Your task to perform on an android device: set an alarm Image 0: 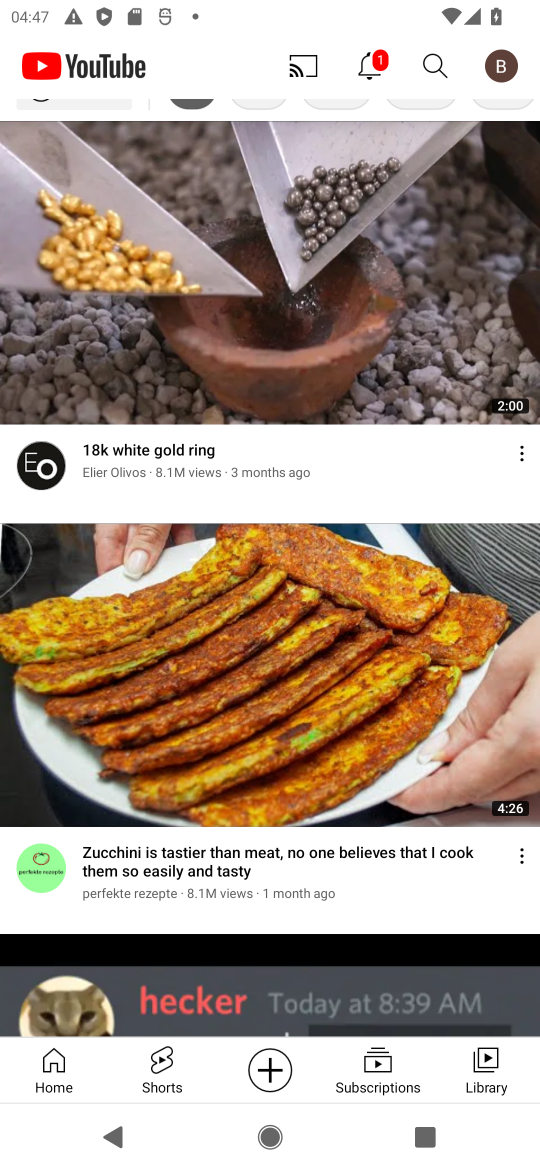
Step 0: press home button
Your task to perform on an android device: set an alarm Image 1: 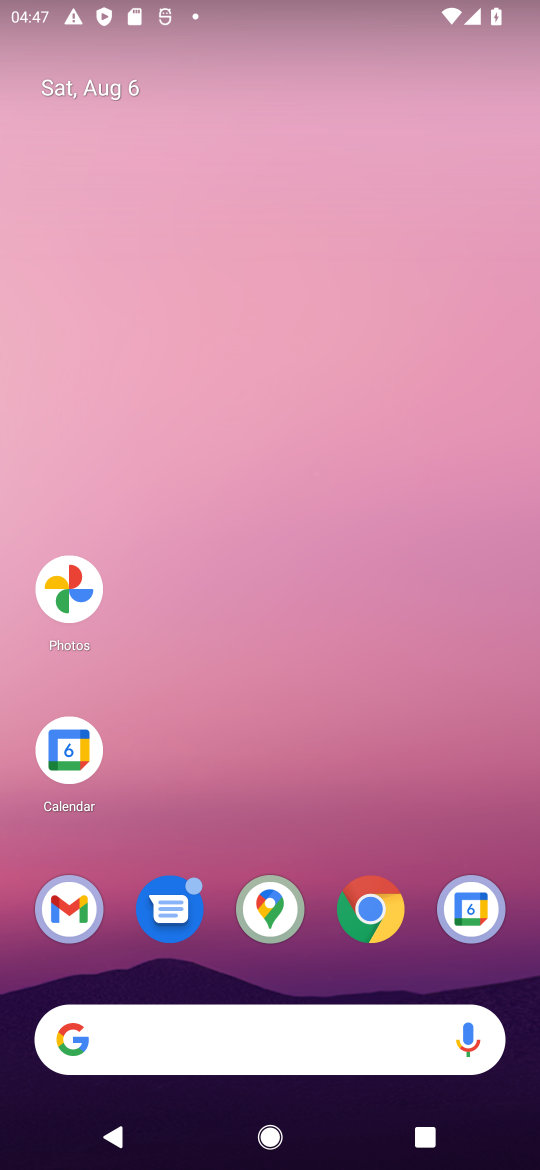
Step 1: drag from (307, 810) to (282, 41)
Your task to perform on an android device: set an alarm Image 2: 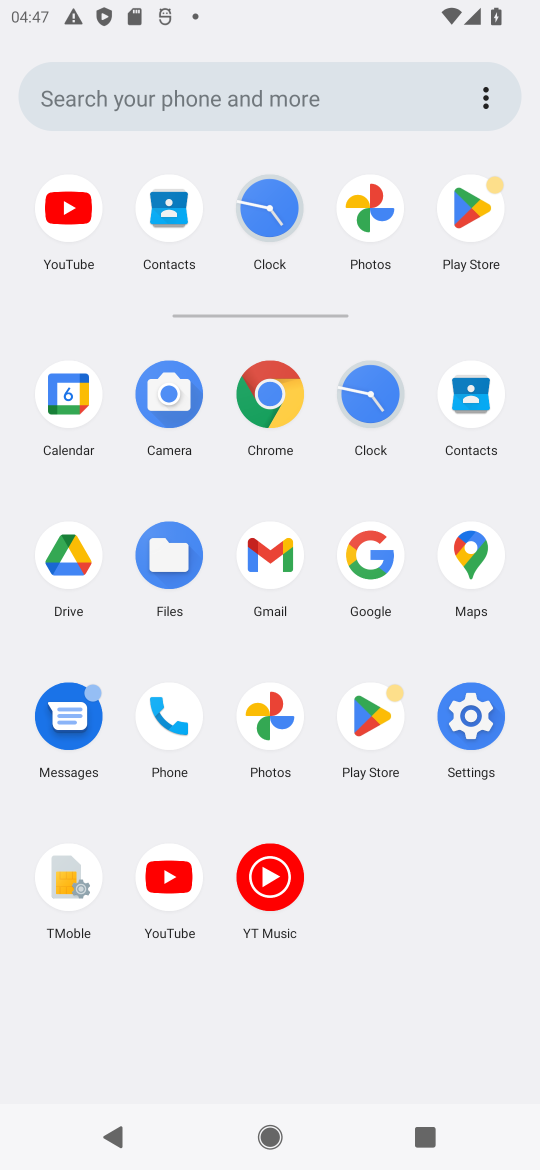
Step 2: click (367, 390)
Your task to perform on an android device: set an alarm Image 3: 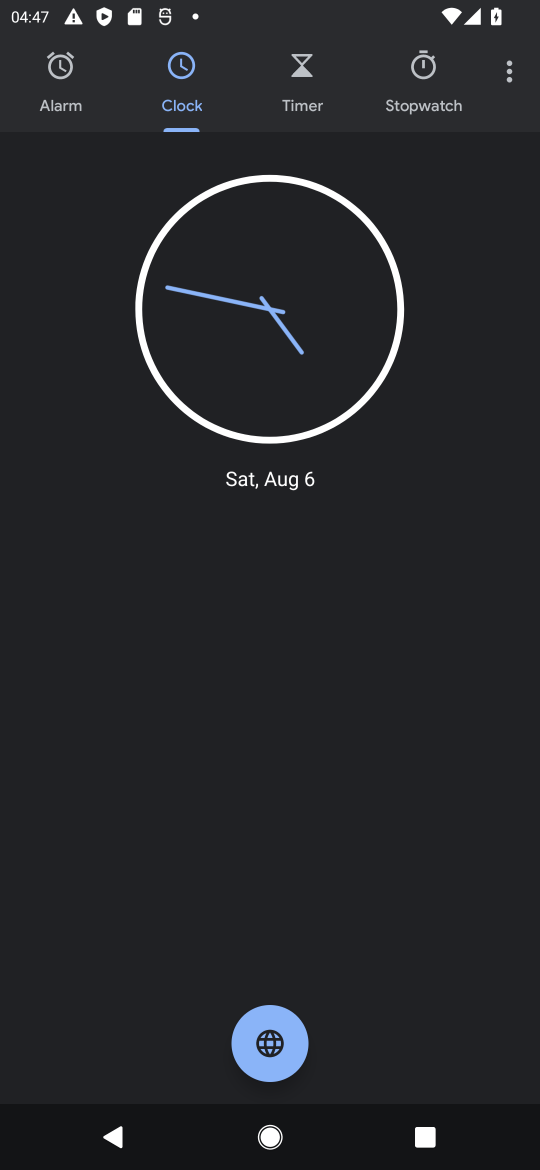
Step 3: click (52, 88)
Your task to perform on an android device: set an alarm Image 4: 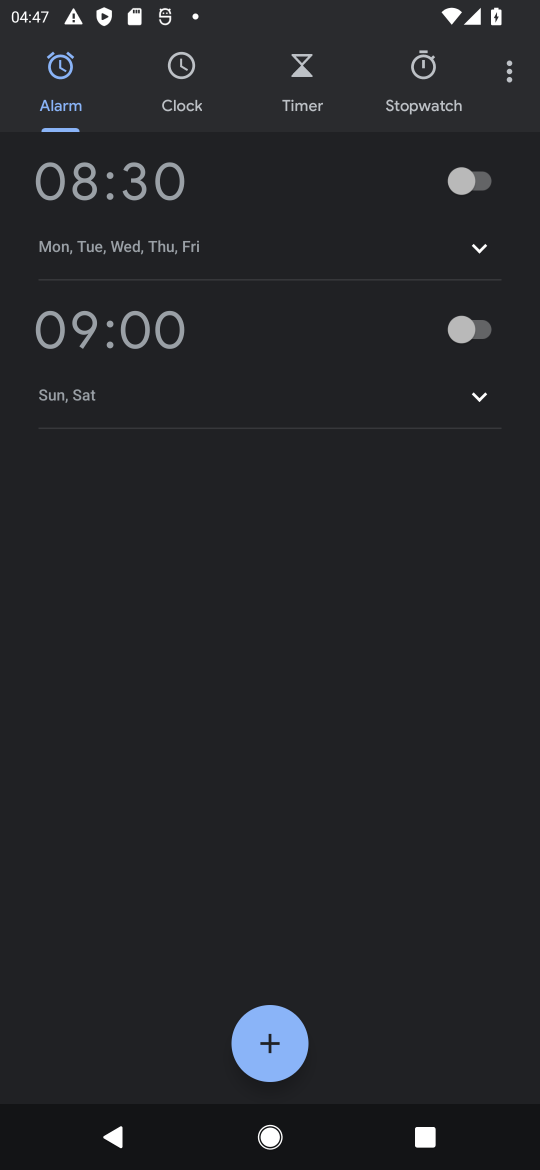
Step 4: click (268, 1041)
Your task to perform on an android device: set an alarm Image 5: 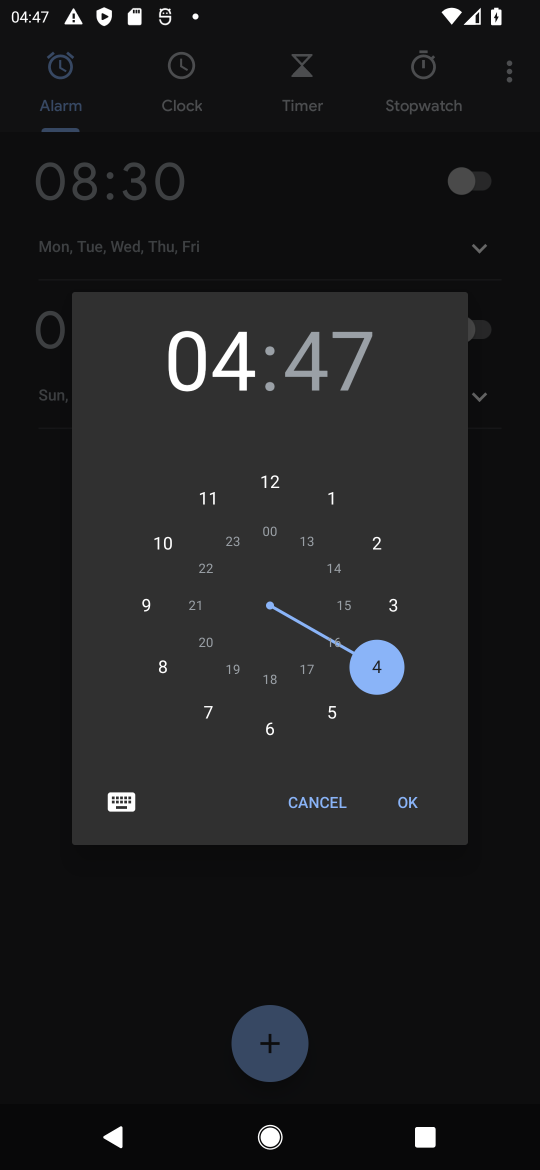
Step 5: click (405, 802)
Your task to perform on an android device: set an alarm Image 6: 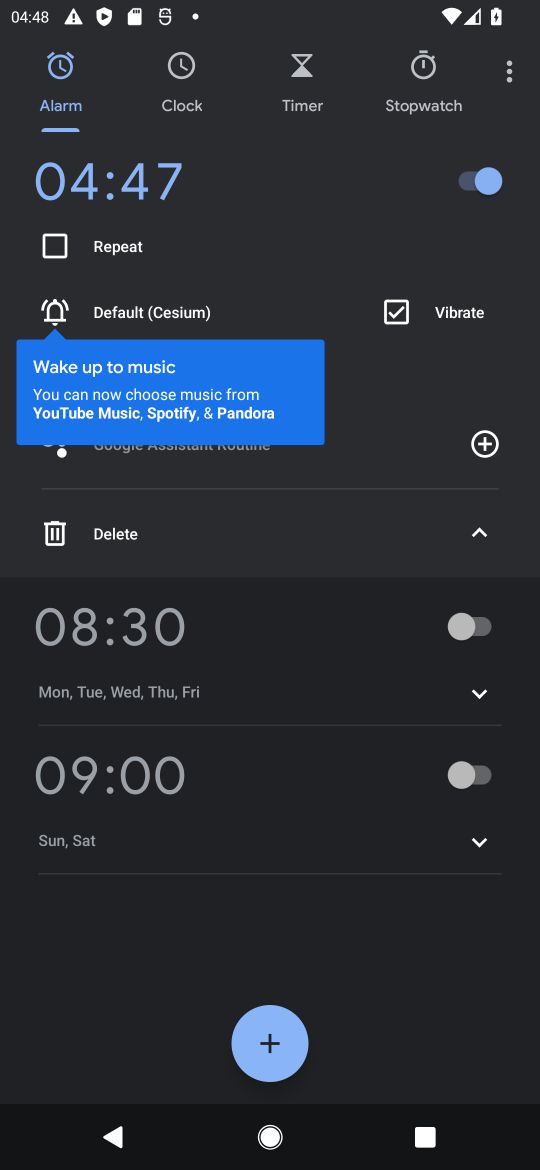
Step 6: task complete